Your task to perform on an android device: Open privacy settings Image 0: 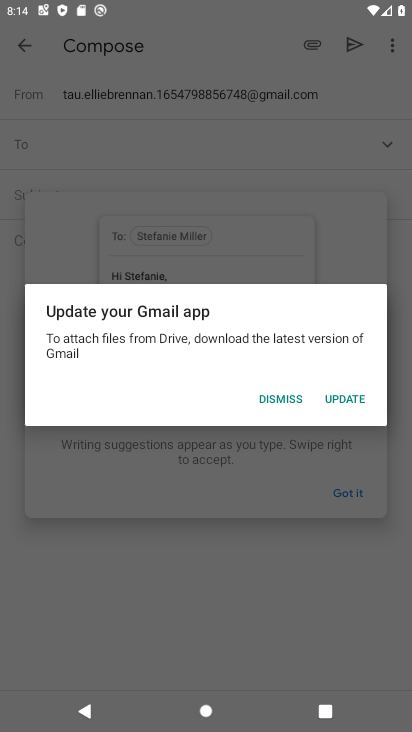
Step 0: press home button
Your task to perform on an android device: Open privacy settings Image 1: 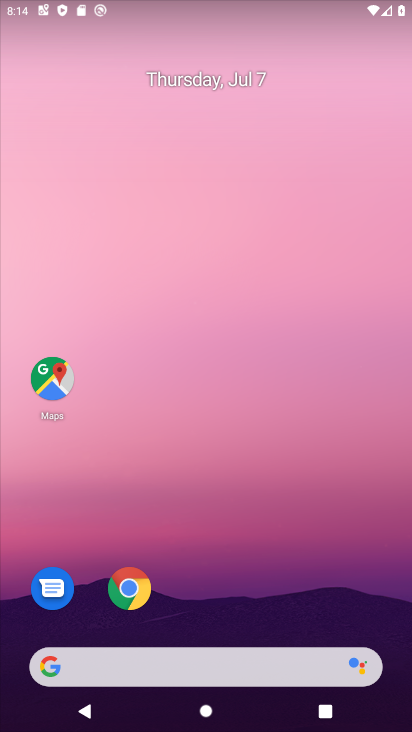
Step 1: drag from (211, 661) to (327, 185)
Your task to perform on an android device: Open privacy settings Image 2: 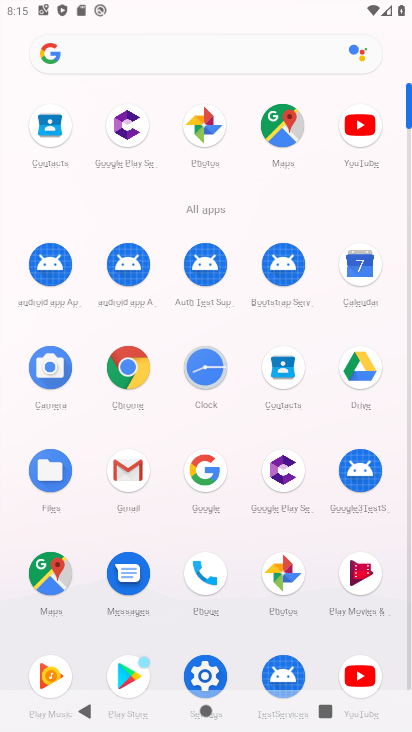
Step 2: click (201, 674)
Your task to perform on an android device: Open privacy settings Image 3: 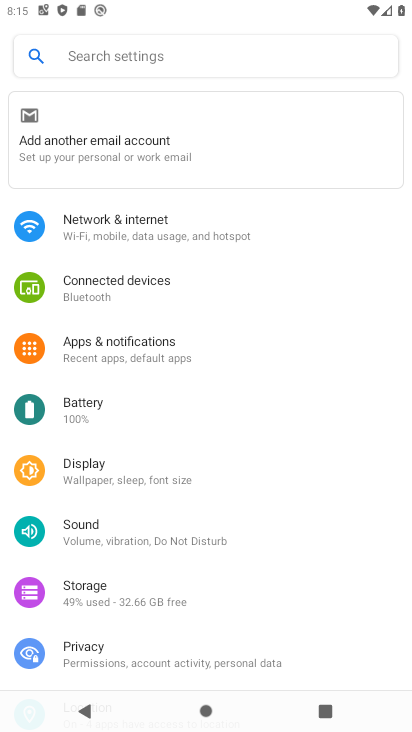
Step 3: click (91, 641)
Your task to perform on an android device: Open privacy settings Image 4: 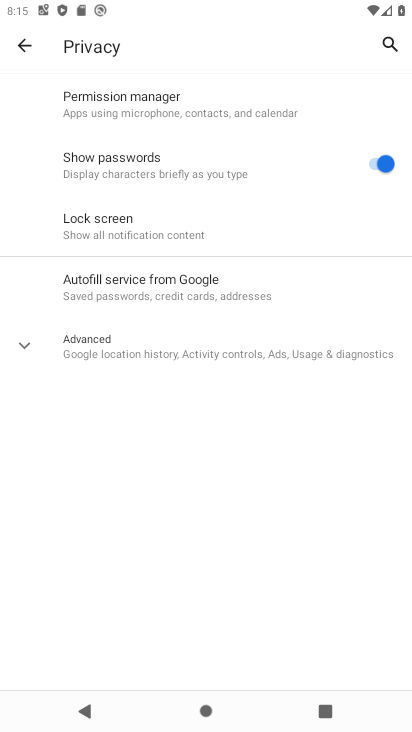
Step 4: task complete